Your task to perform on an android device: What's the weather today? Image 0: 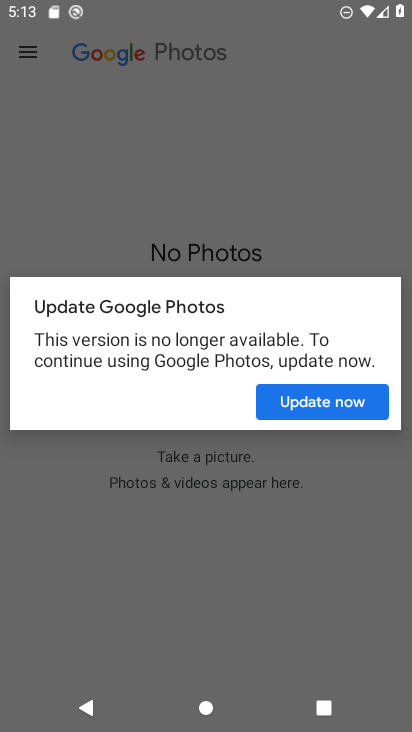
Step 0: press back button
Your task to perform on an android device: What's the weather today? Image 1: 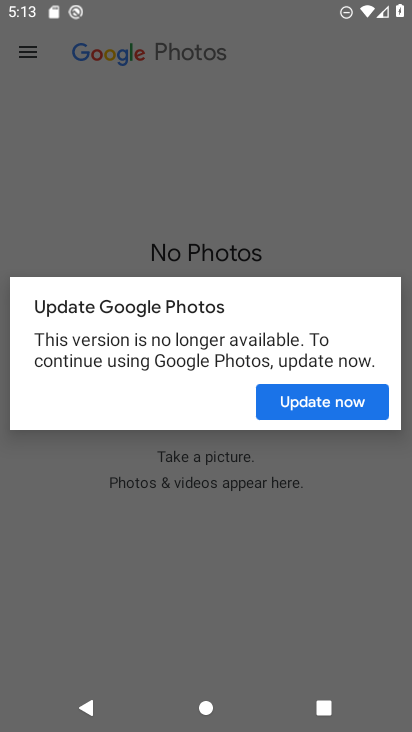
Step 1: press home button
Your task to perform on an android device: What's the weather today? Image 2: 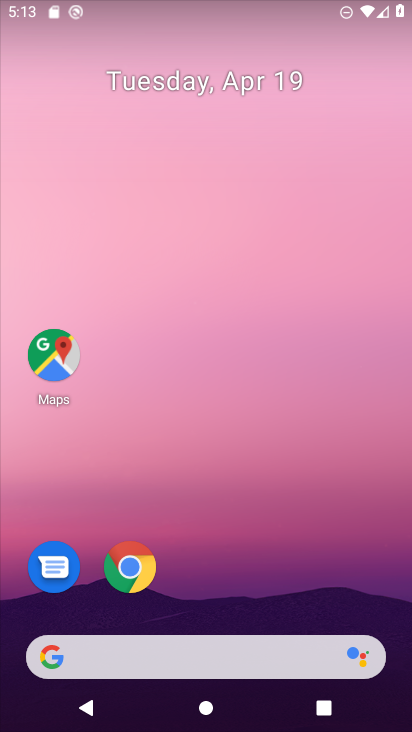
Step 2: drag from (298, 544) to (198, 26)
Your task to perform on an android device: What's the weather today? Image 3: 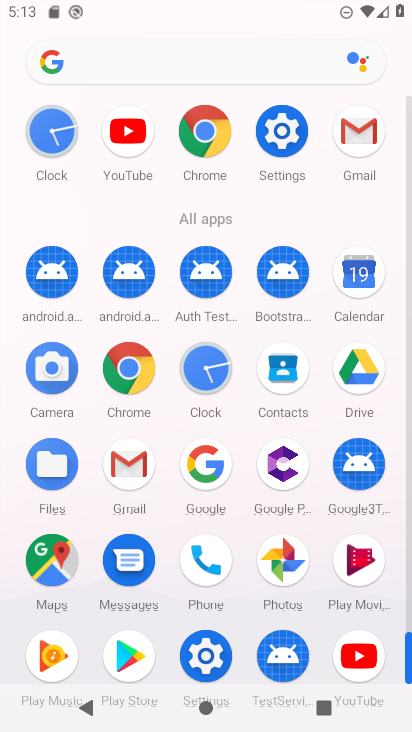
Step 3: drag from (10, 514) to (14, 196)
Your task to perform on an android device: What's the weather today? Image 4: 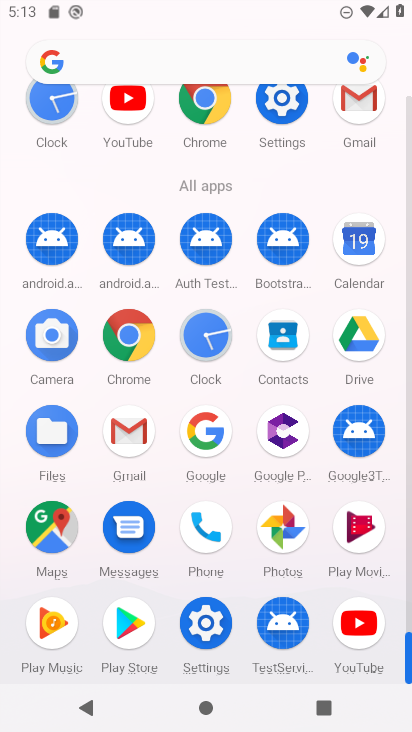
Step 4: click (17, 399)
Your task to perform on an android device: What's the weather today? Image 5: 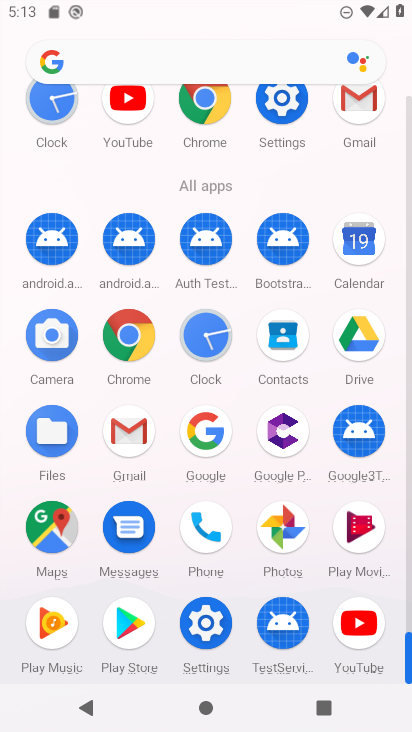
Step 5: drag from (3, 174) to (0, 401)
Your task to perform on an android device: What's the weather today? Image 6: 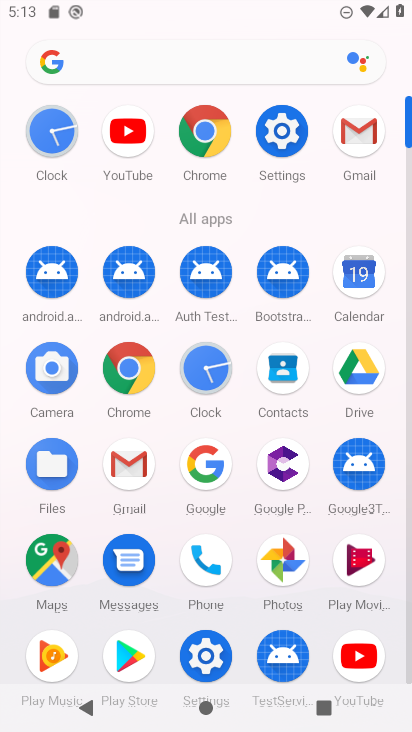
Step 6: click (199, 461)
Your task to perform on an android device: What's the weather today? Image 7: 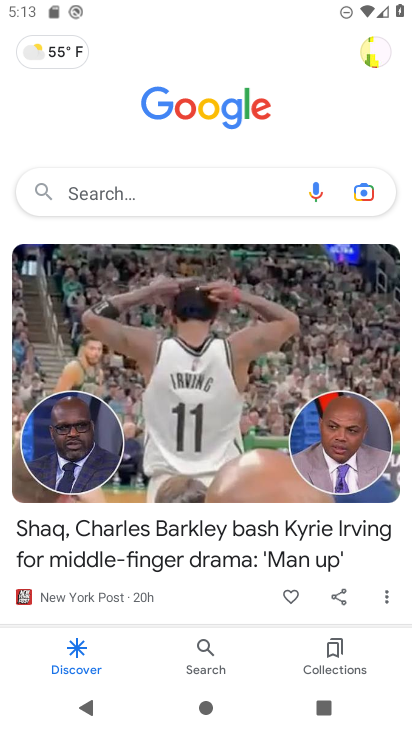
Step 7: click (171, 188)
Your task to perform on an android device: What's the weather today? Image 8: 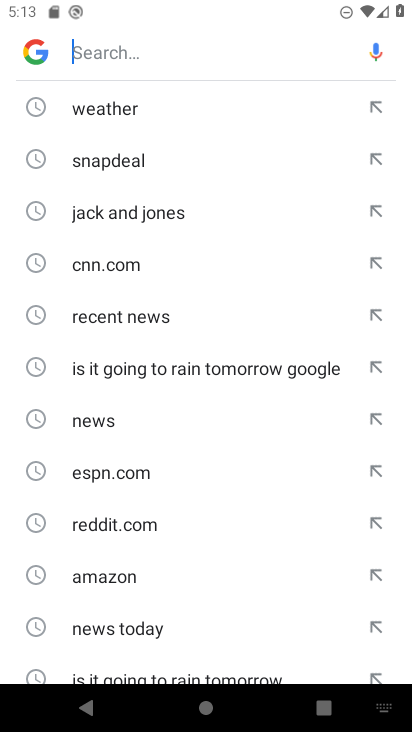
Step 8: click (145, 100)
Your task to perform on an android device: What's the weather today? Image 9: 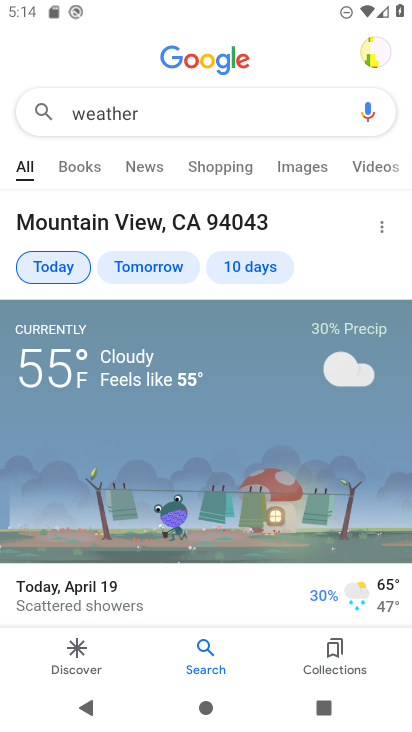
Step 9: task complete